Your task to perform on an android device: open chrome privacy settings Image 0: 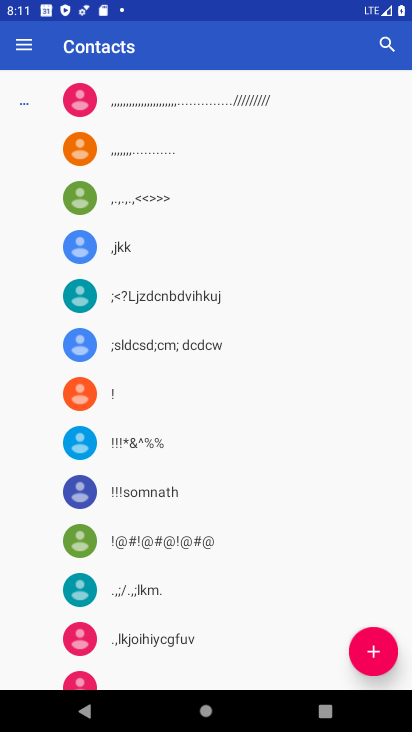
Step 0: press home button
Your task to perform on an android device: open chrome privacy settings Image 1: 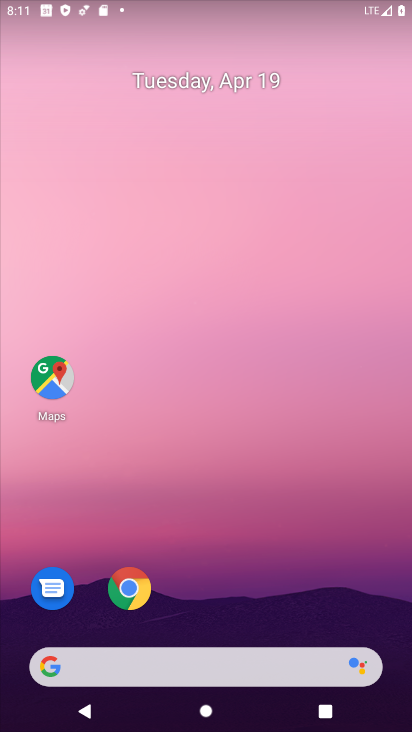
Step 1: click (125, 583)
Your task to perform on an android device: open chrome privacy settings Image 2: 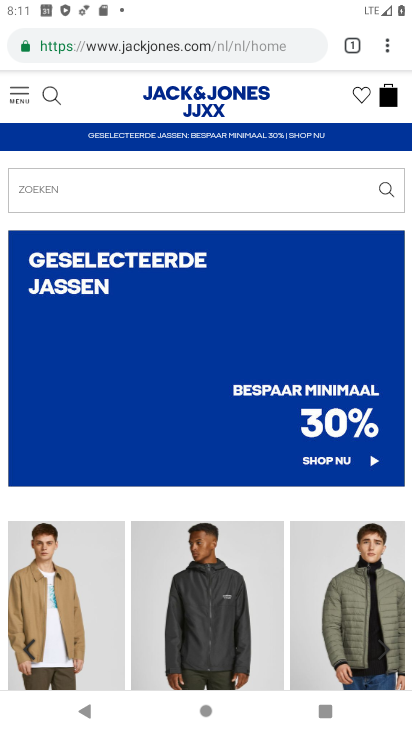
Step 2: click (388, 45)
Your task to perform on an android device: open chrome privacy settings Image 3: 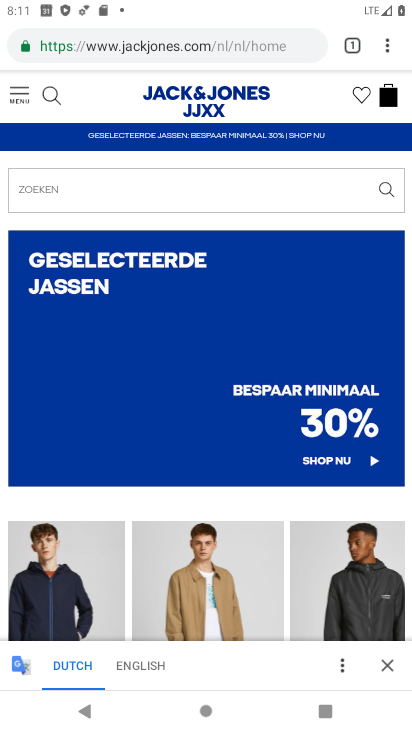
Step 3: click (388, 45)
Your task to perform on an android device: open chrome privacy settings Image 4: 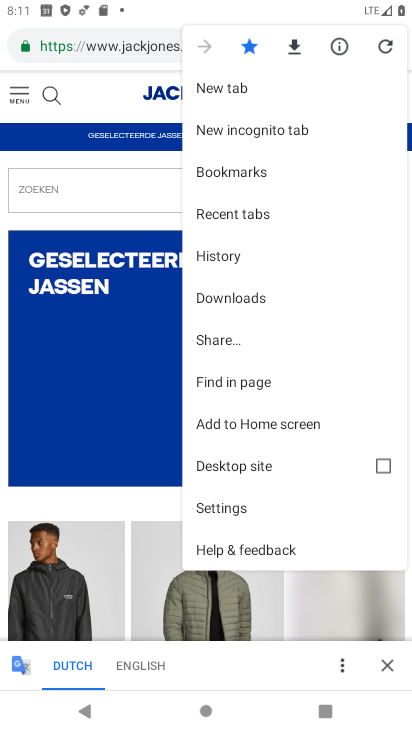
Step 4: click (220, 507)
Your task to perform on an android device: open chrome privacy settings Image 5: 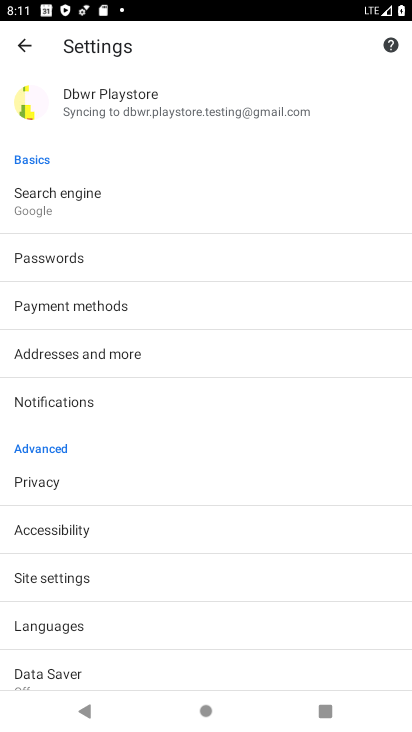
Step 5: click (104, 486)
Your task to perform on an android device: open chrome privacy settings Image 6: 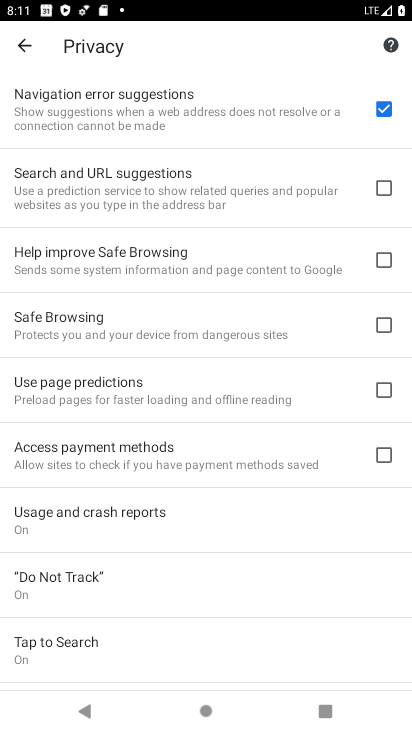
Step 6: task complete